Your task to perform on an android device: Go to Reddit.com Image 0: 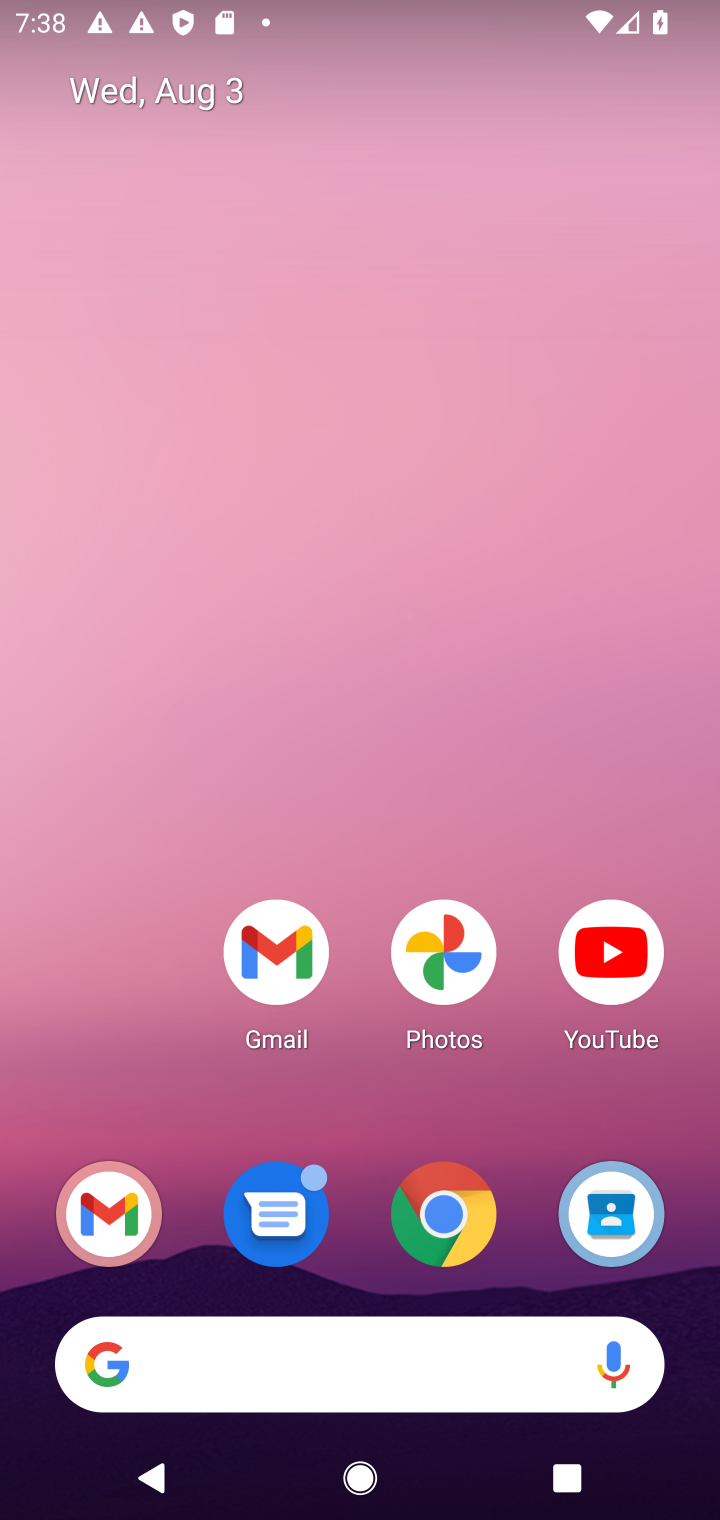
Step 0: drag from (323, 994) to (323, 284)
Your task to perform on an android device: Go to Reddit.com Image 1: 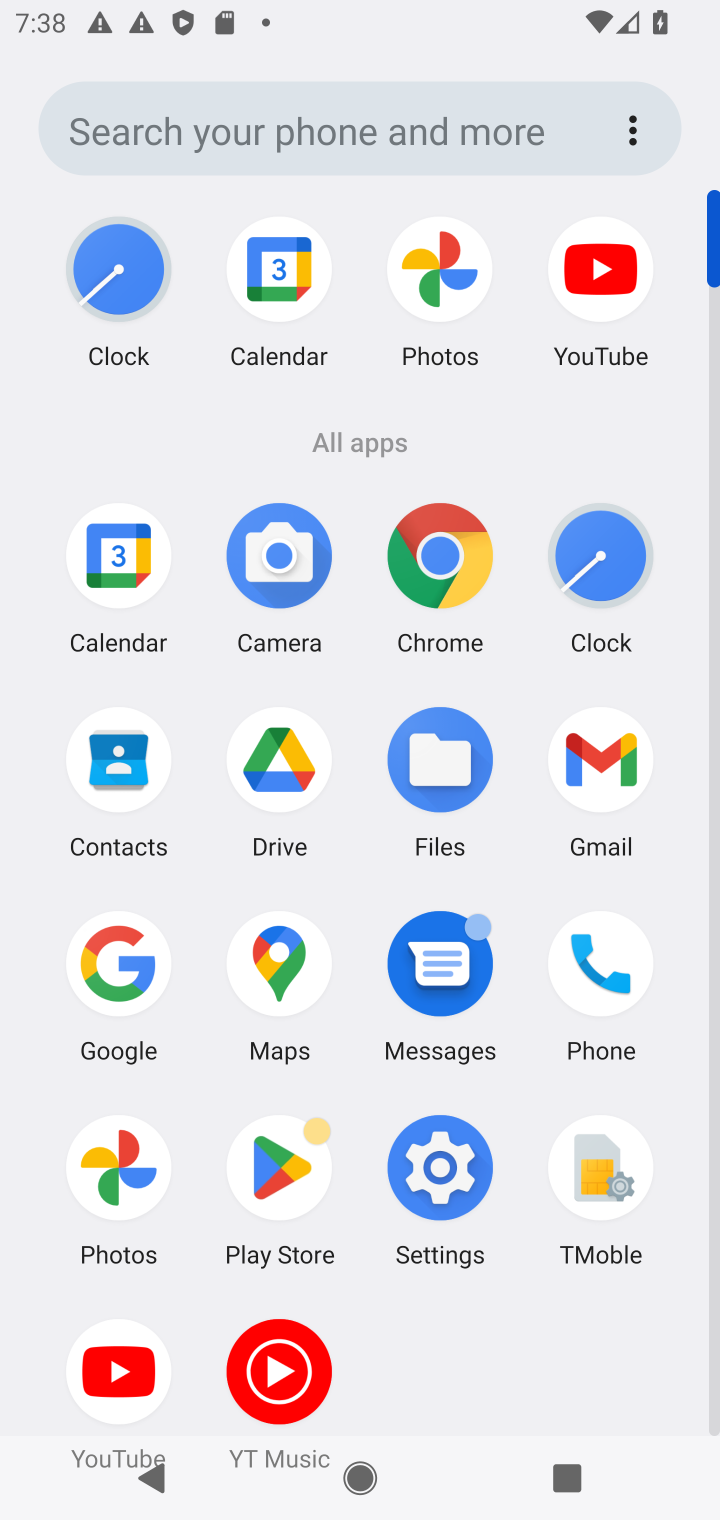
Step 1: click (134, 1013)
Your task to perform on an android device: Go to Reddit.com Image 2: 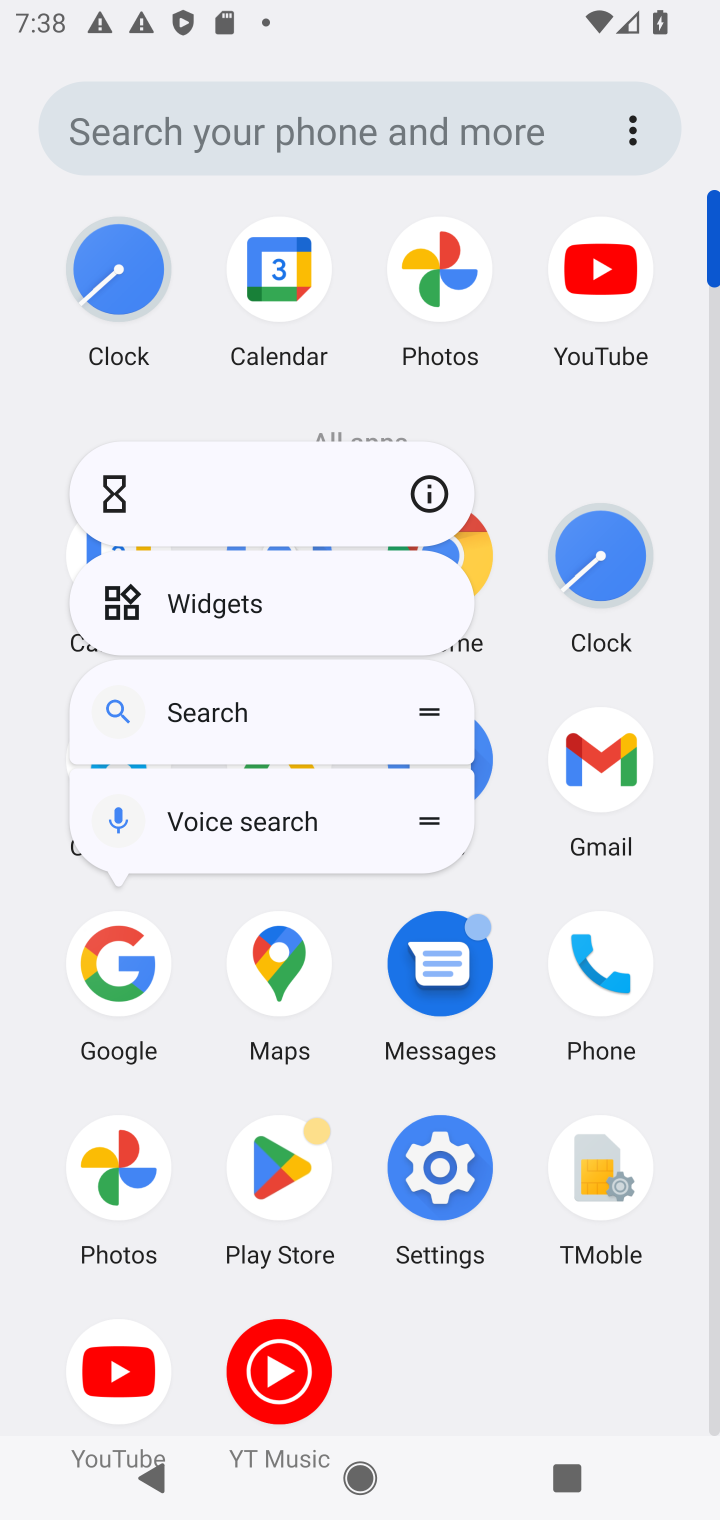
Step 2: click (125, 974)
Your task to perform on an android device: Go to Reddit.com Image 3: 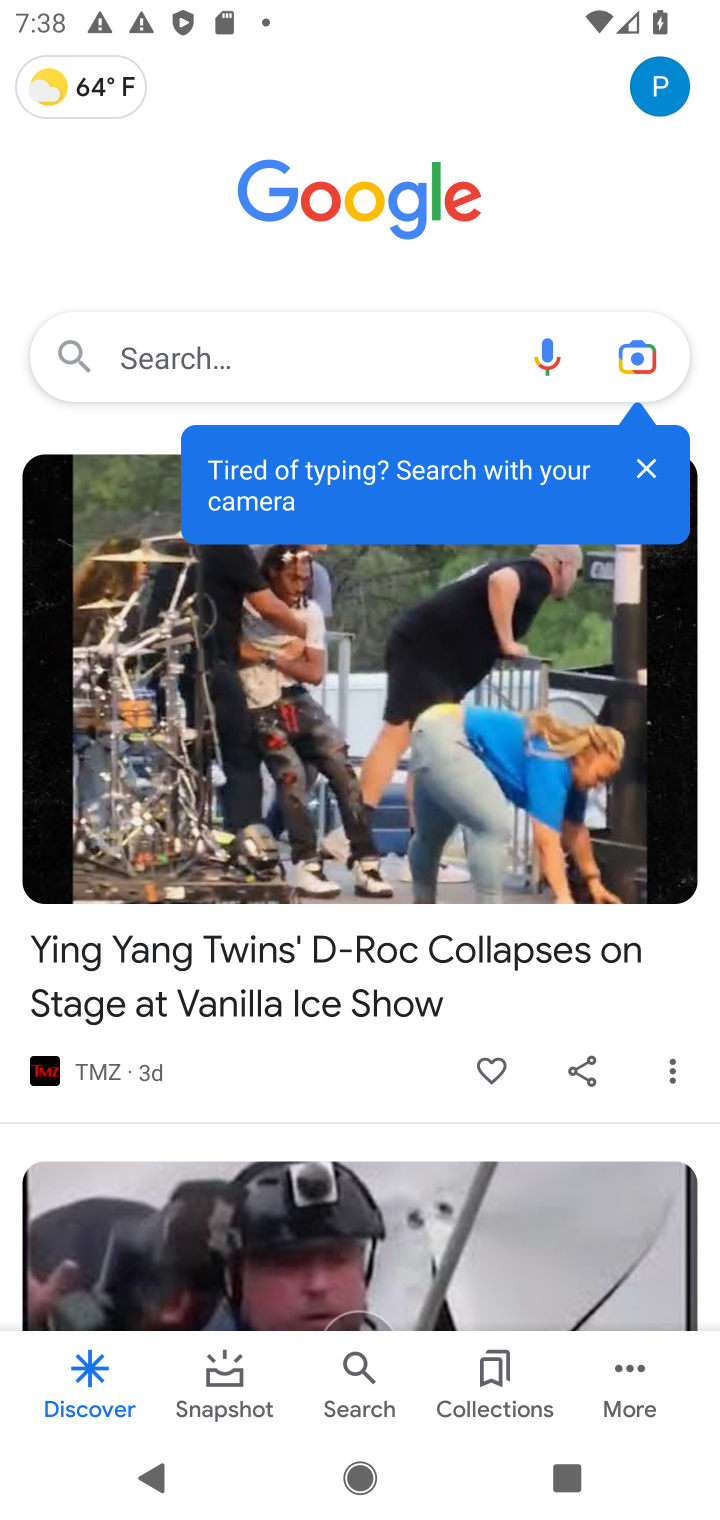
Step 3: click (313, 348)
Your task to perform on an android device: Go to Reddit.com Image 4: 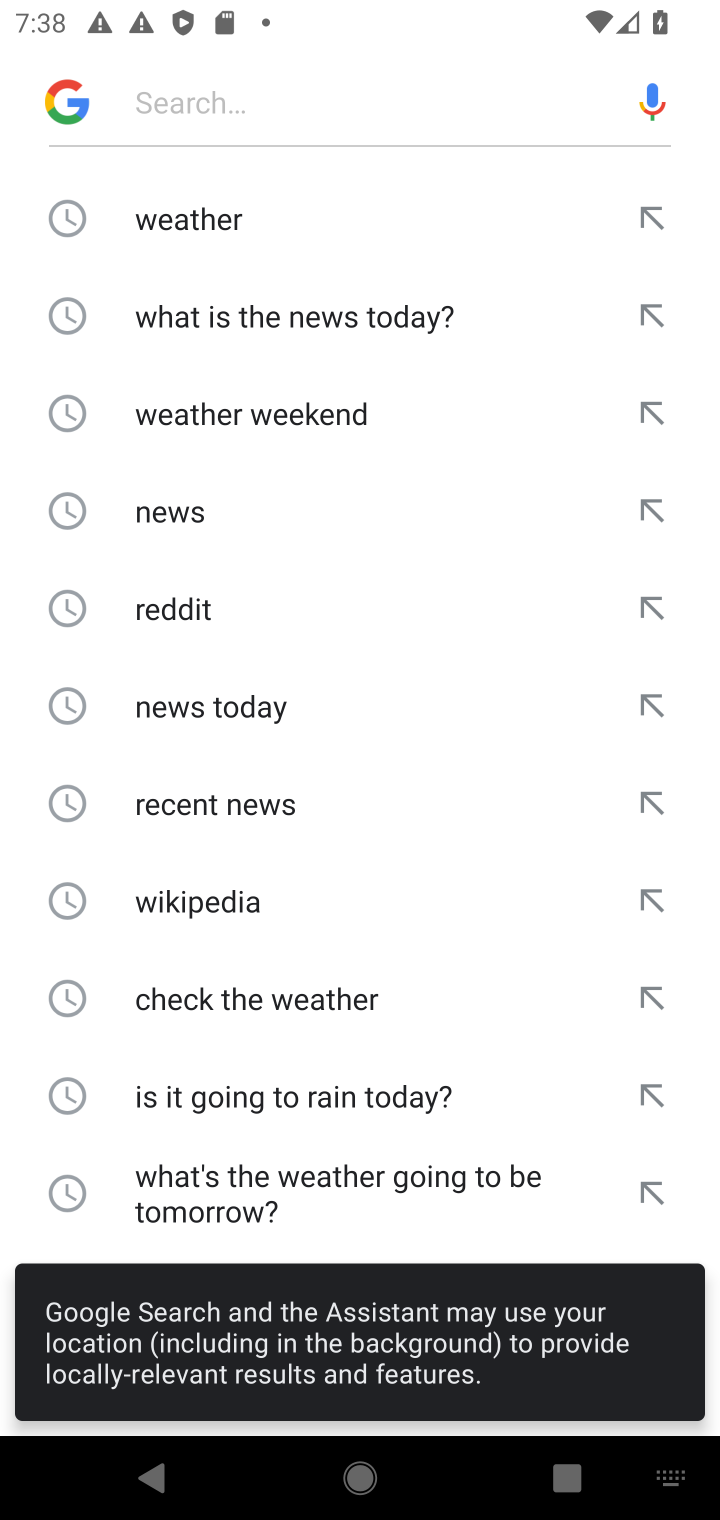
Step 4: drag from (242, 1211) to (170, 400)
Your task to perform on an android device: Go to Reddit.com Image 5: 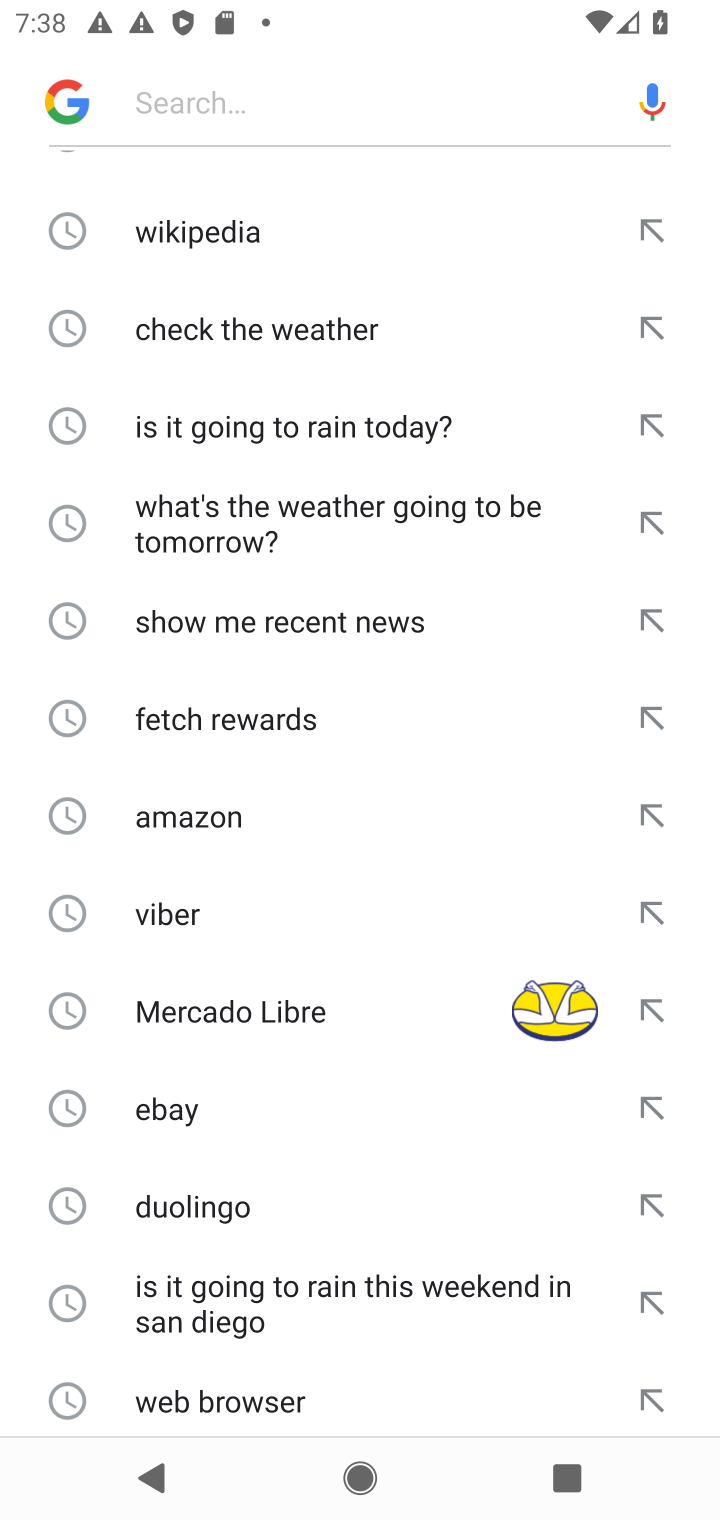
Step 5: drag from (162, 1390) to (159, 751)
Your task to perform on an android device: Go to Reddit.com Image 6: 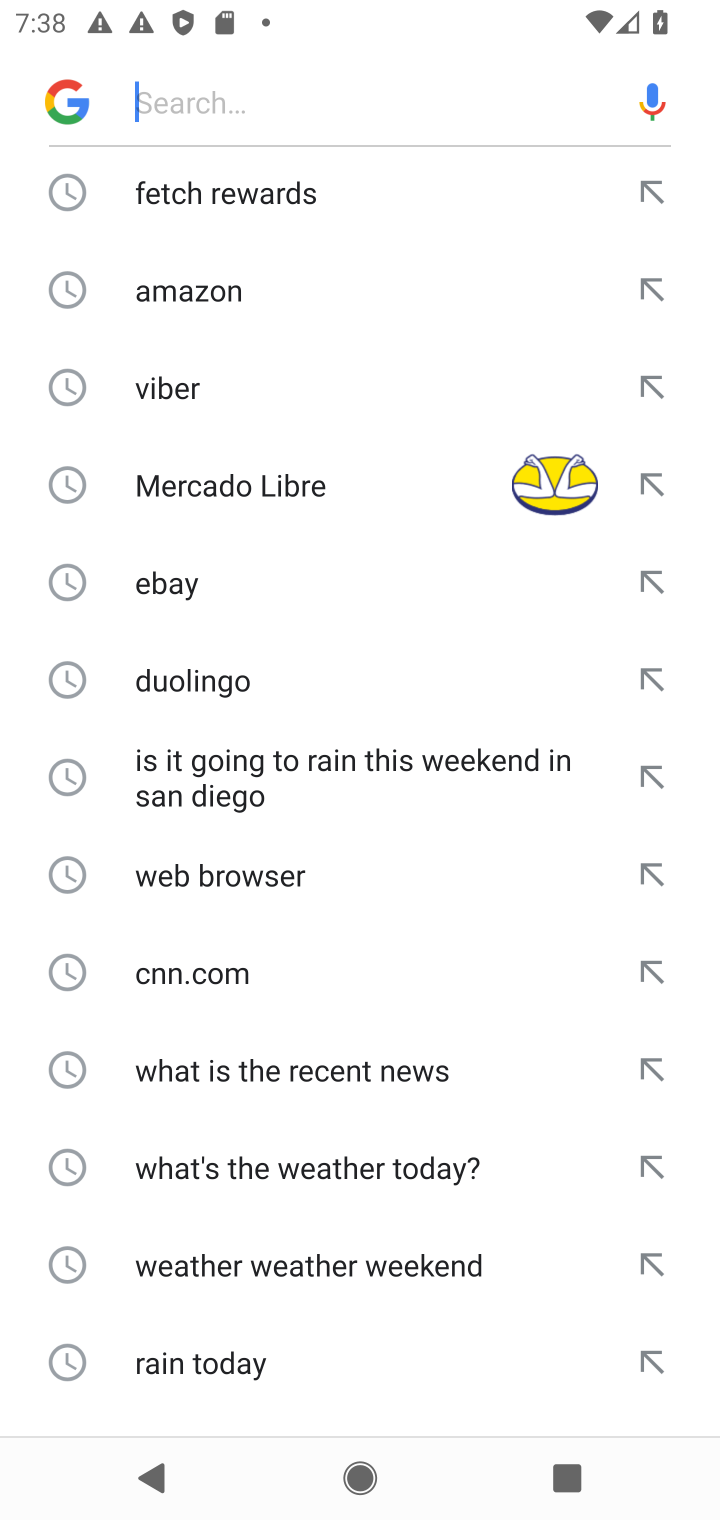
Step 6: drag from (222, 489) to (254, 1145)
Your task to perform on an android device: Go to Reddit.com Image 7: 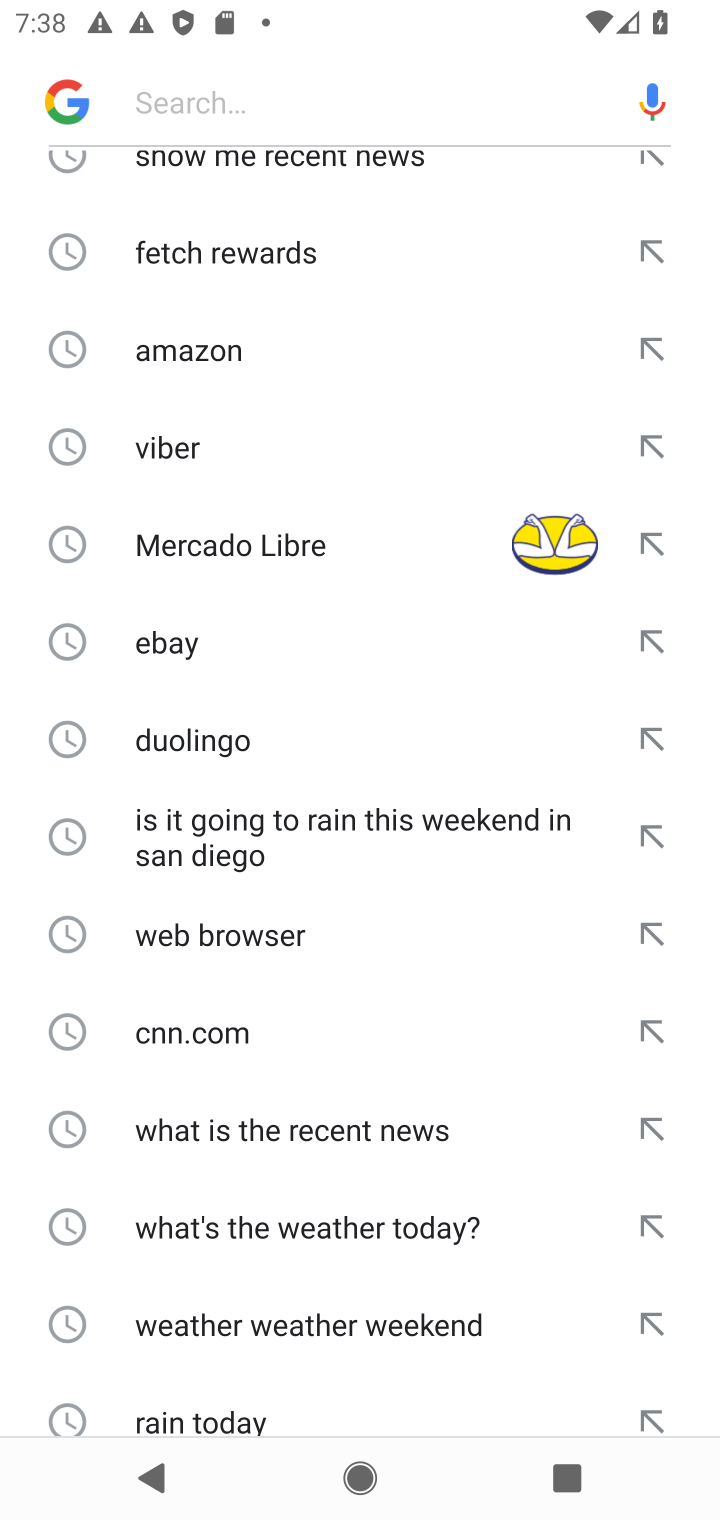
Step 7: drag from (249, 500) to (301, 1166)
Your task to perform on an android device: Go to Reddit.com Image 8: 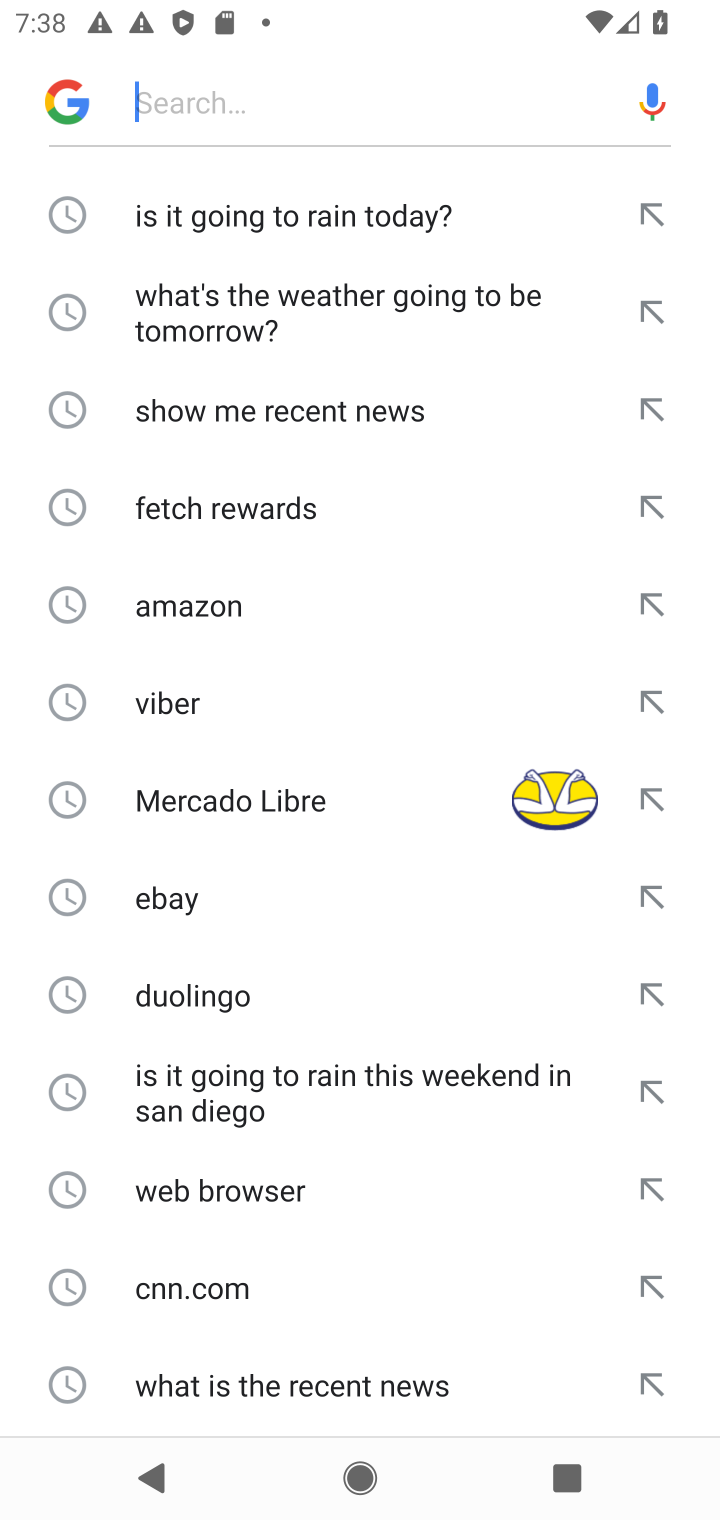
Step 8: drag from (213, 1198) to (149, 482)
Your task to perform on an android device: Go to Reddit.com Image 9: 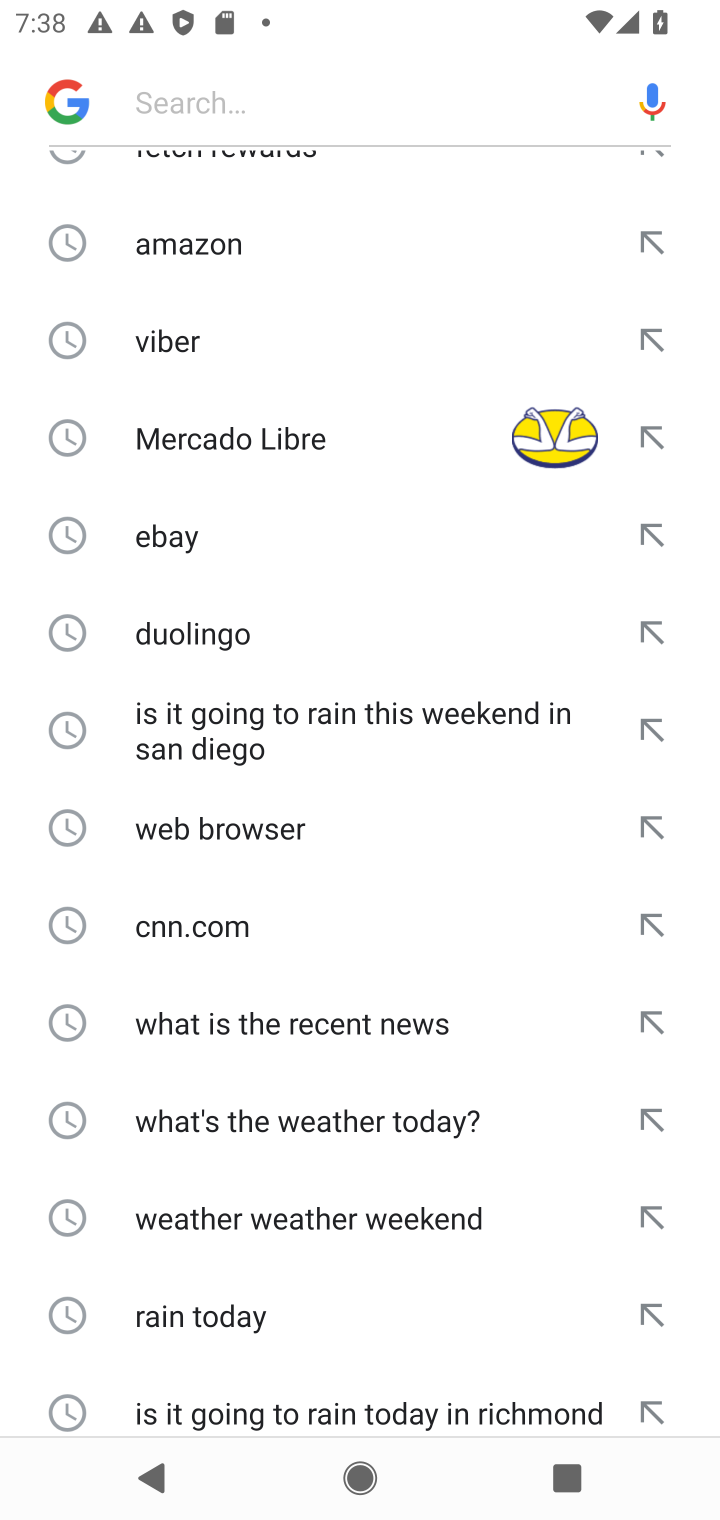
Step 9: drag from (202, 1385) to (236, 635)
Your task to perform on an android device: Go to Reddit.com Image 10: 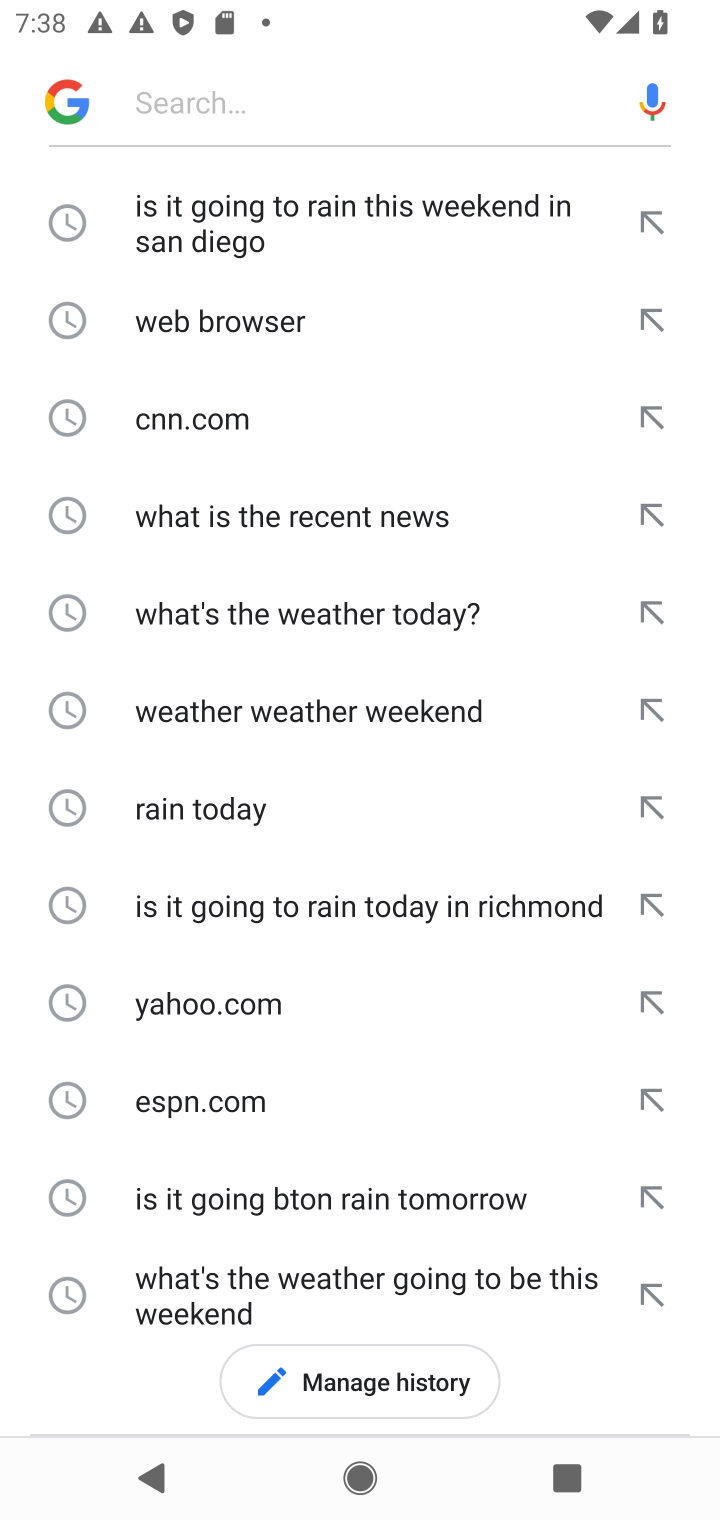
Step 10: drag from (269, 198) to (296, 1137)
Your task to perform on an android device: Go to Reddit.com Image 11: 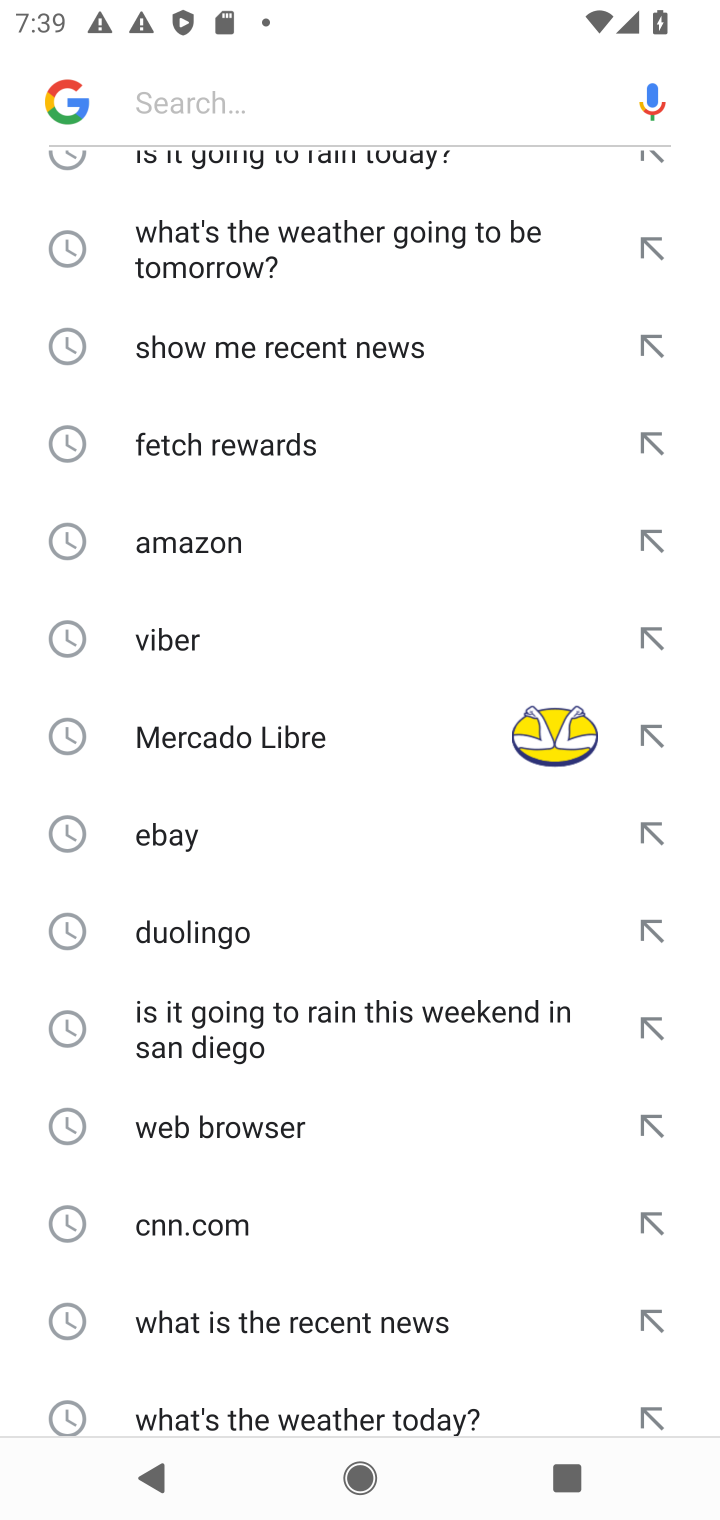
Step 11: drag from (249, 309) to (280, 1115)
Your task to perform on an android device: Go to Reddit.com Image 12: 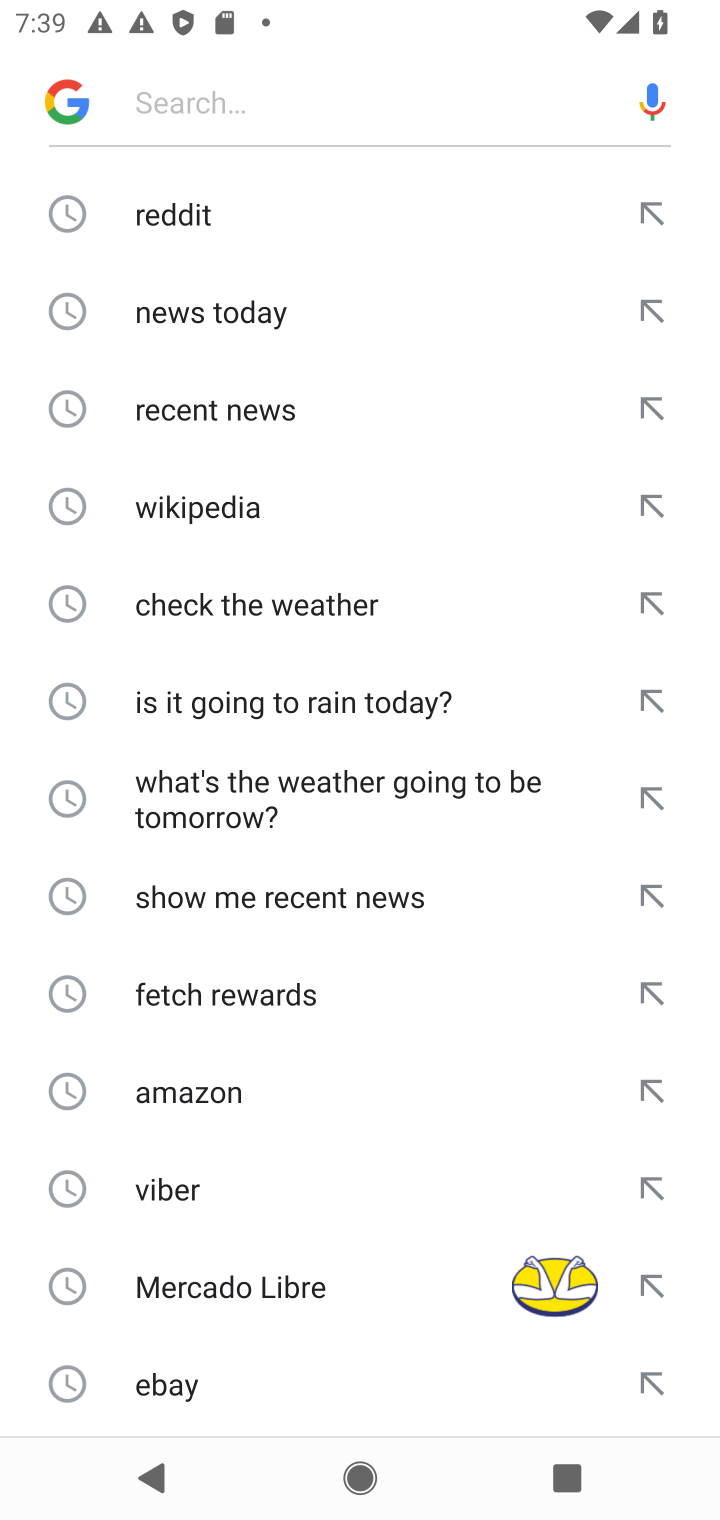
Step 12: drag from (203, 186) to (203, 731)
Your task to perform on an android device: Go to Reddit.com Image 13: 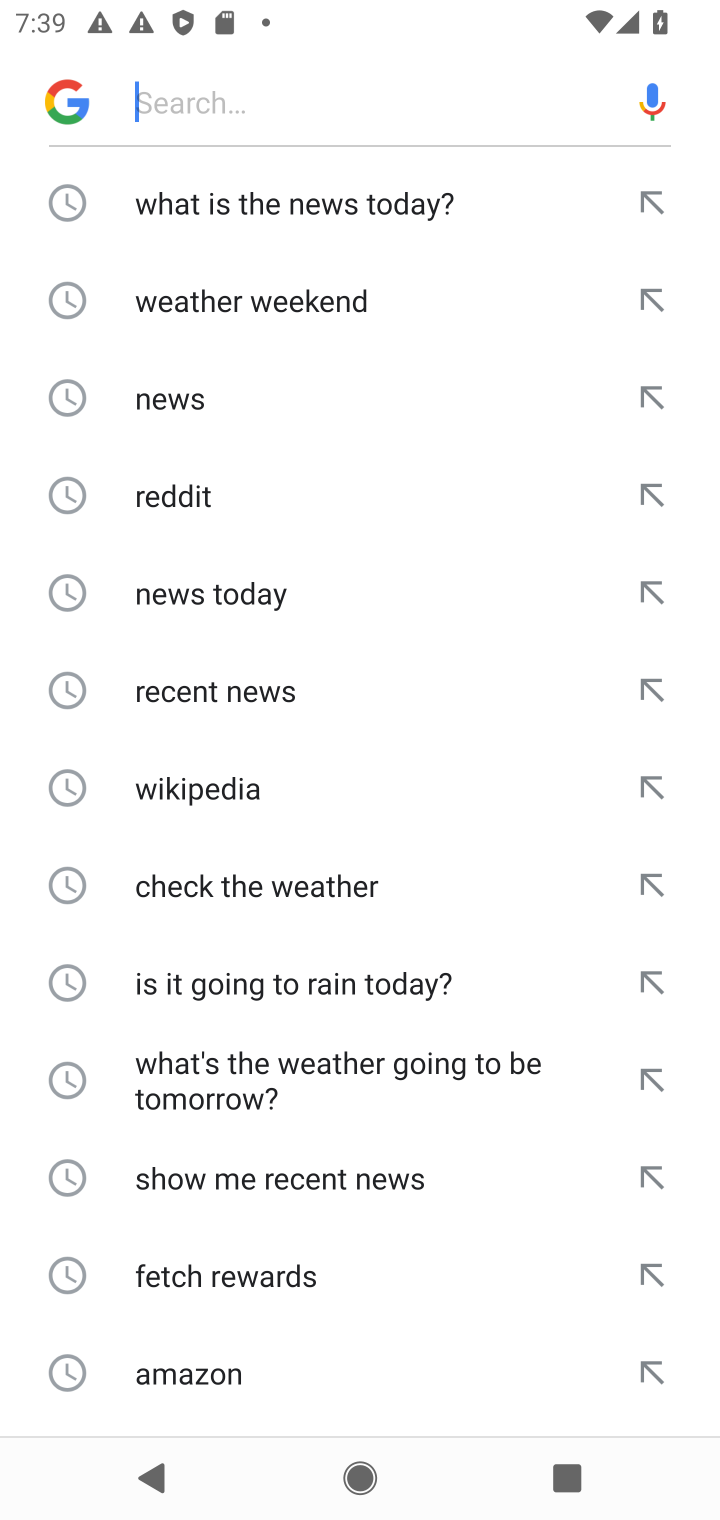
Step 13: click (165, 506)
Your task to perform on an android device: Go to Reddit.com Image 14: 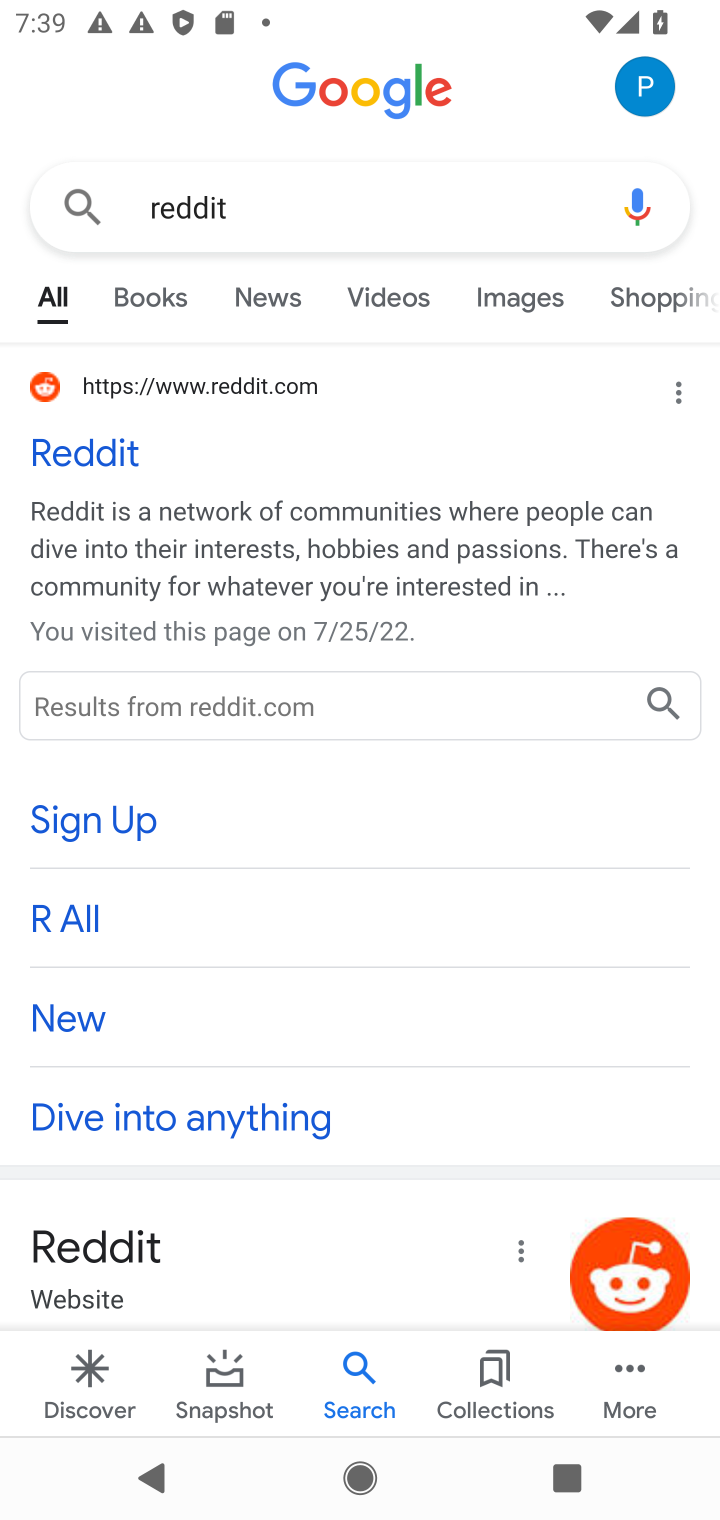
Step 14: click (106, 445)
Your task to perform on an android device: Go to Reddit.com Image 15: 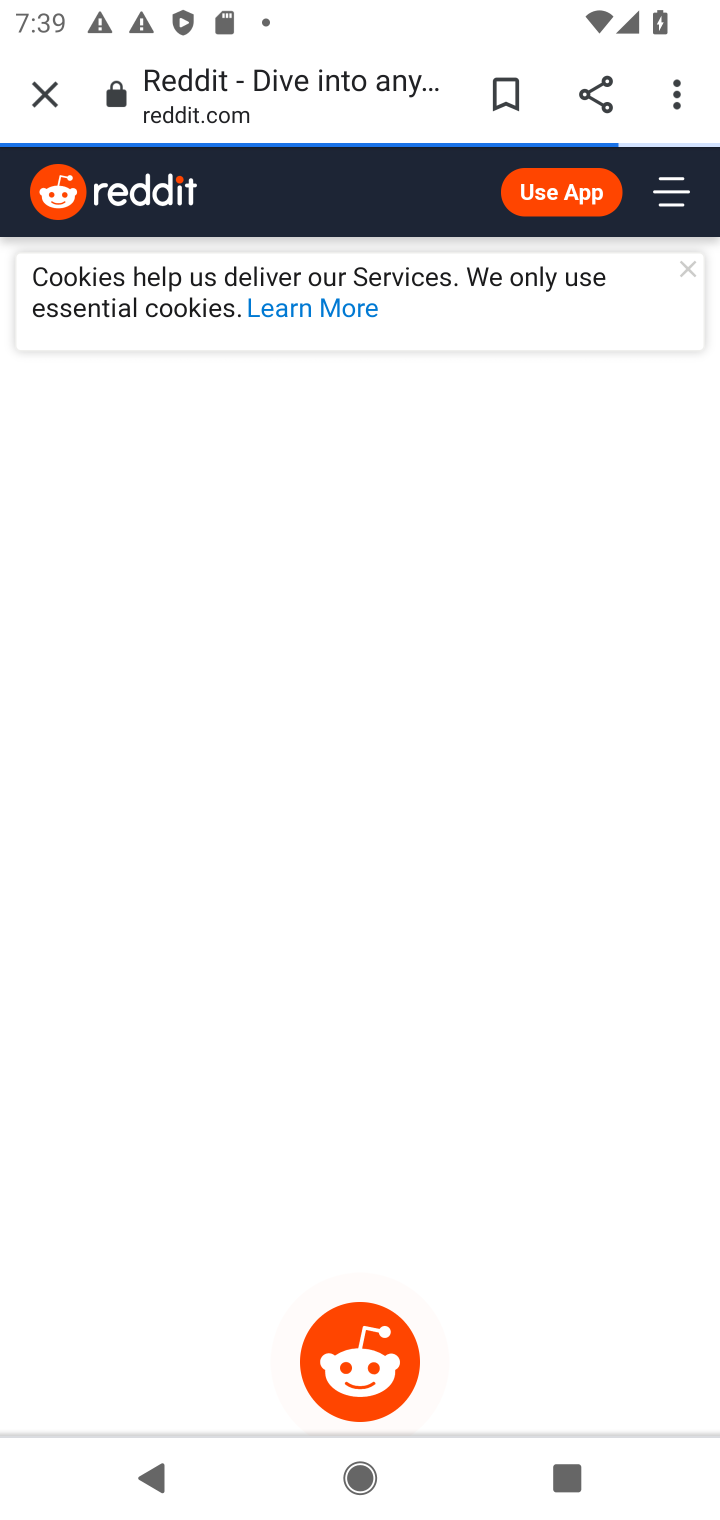
Step 15: task complete